Your task to perform on an android device: Open Google Image 0: 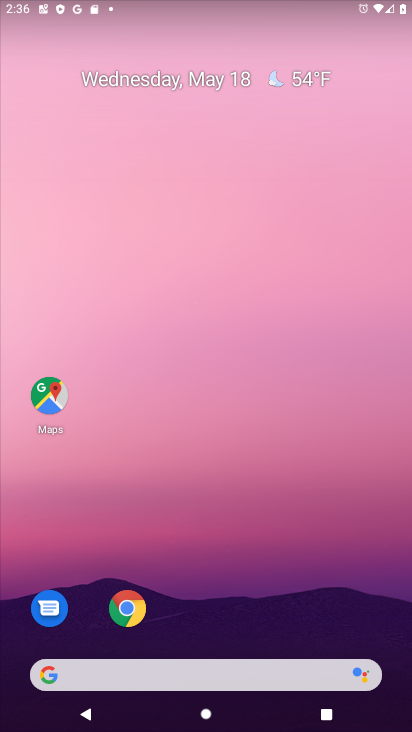
Step 0: drag from (291, 654) to (319, 14)
Your task to perform on an android device: Open Google Image 1: 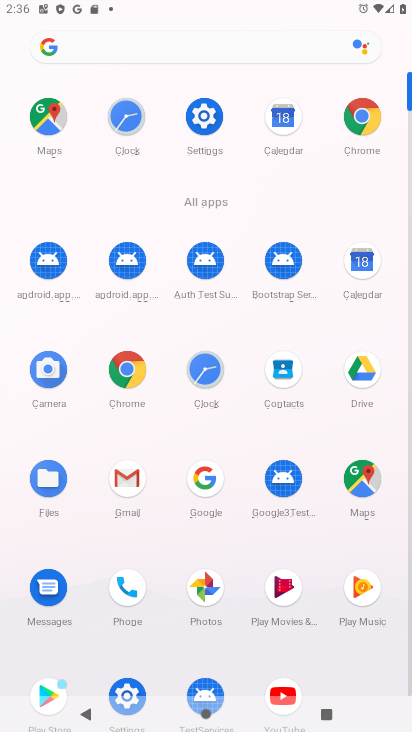
Step 1: click (197, 475)
Your task to perform on an android device: Open Google Image 2: 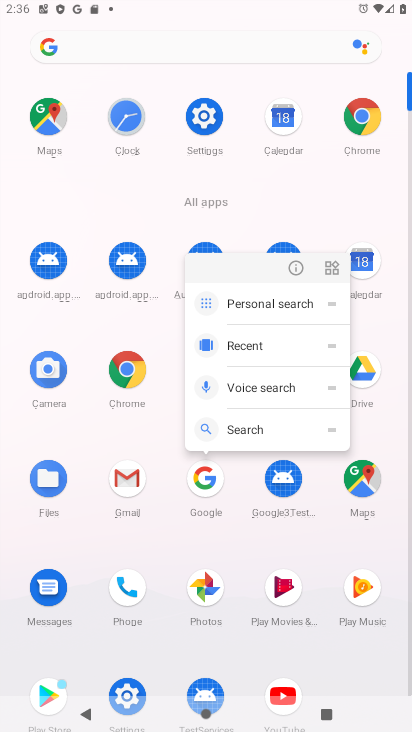
Step 2: click (202, 480)
Your task to perform on an android device: Open Google Image 3: 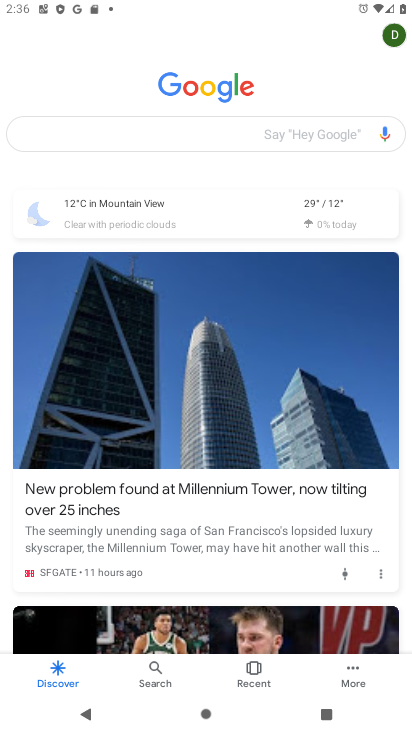
Step 3: task complete